Your task to perform on an android device: Turn off the flashlight Image 0: 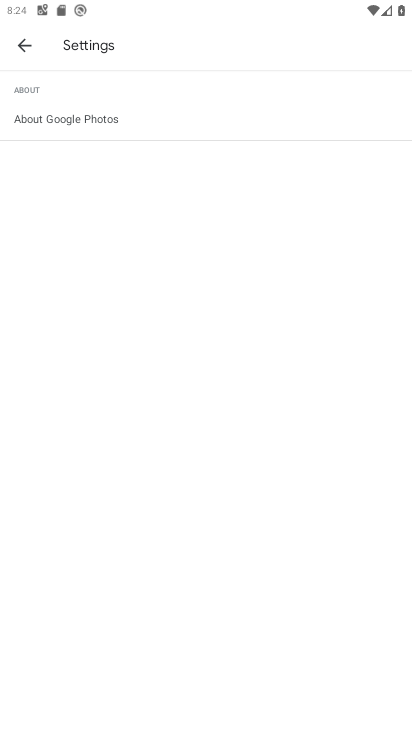
Step 0: press home button
Your task to perform on an android device: Turn off the flashlight Image 1: 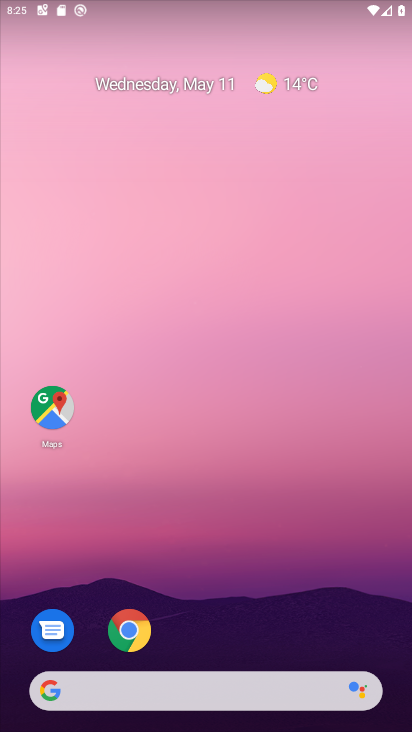
Step 1: drag from (11, 664) to (256, 252)
Your task to perform on an android device: Turn off the flashlight Image 2: 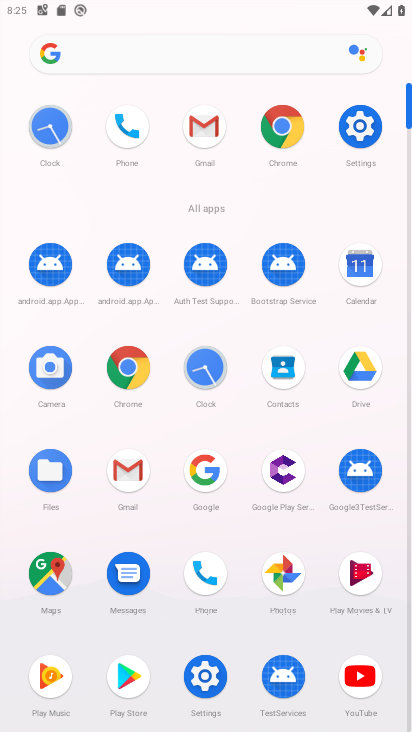
Step 2: click (375, 134)
Your task to perform on an android device: Turn off the flashlight Image 3: 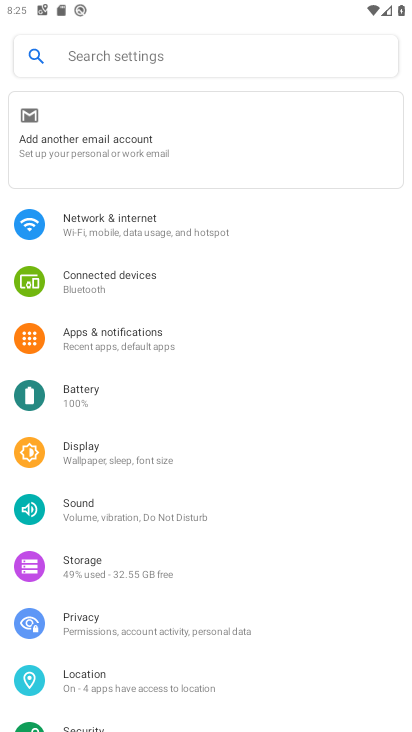
Step 3: task complete